Your task to perform on an android device: Open notification settings Image 0: 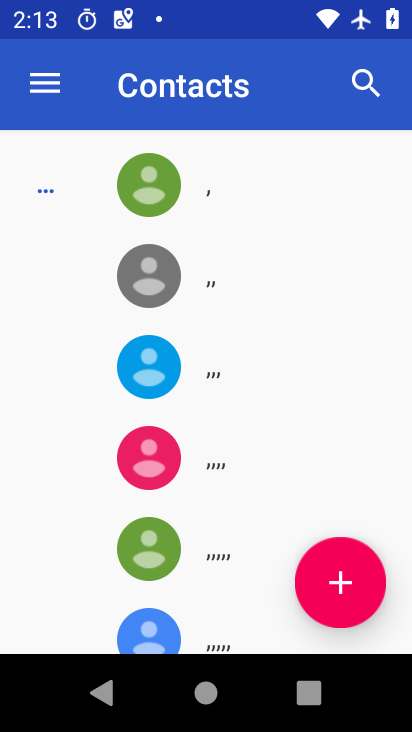
Step 0: press home button
Your task to perform on an android device: Open notification settings Image 1: 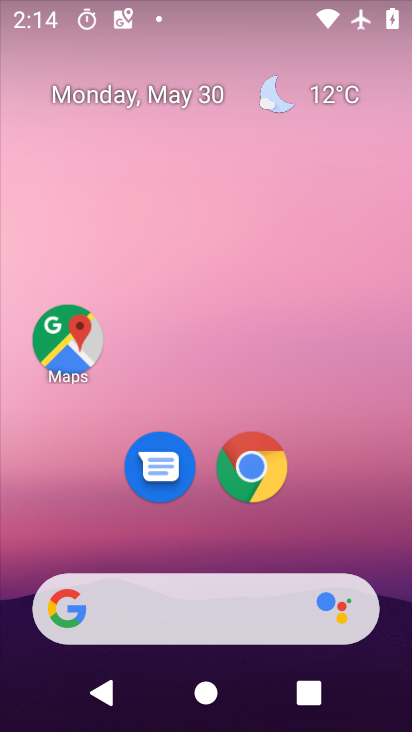
Step 1: drag from (395, 692) to (331, 218)
Your task to perform on an android device: Open notification settings Image 2: 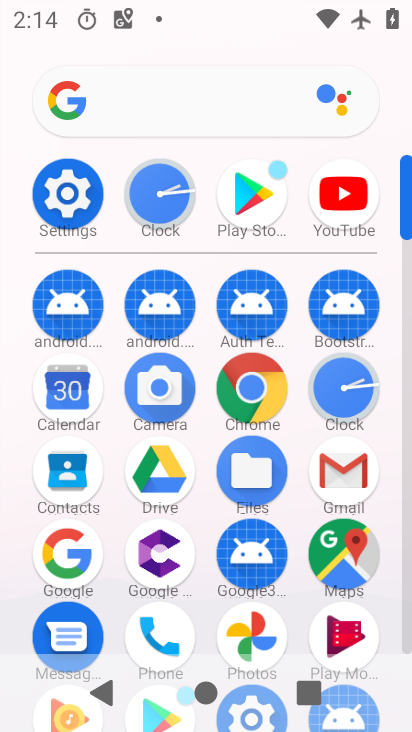
Step 2: click (62, 197)
Your task to perform on an android device: Open notification settings Image 3: 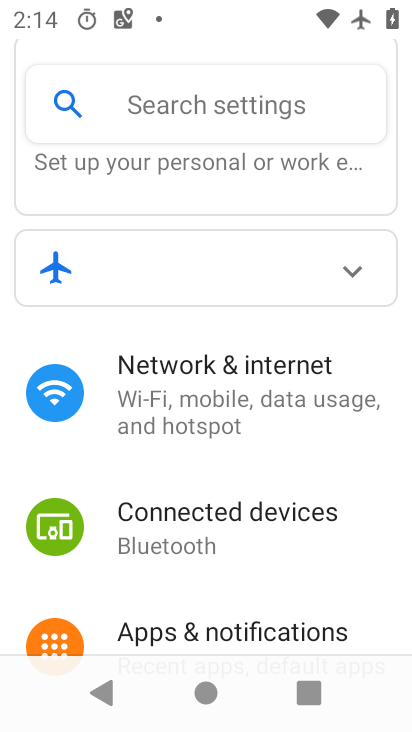
Step 3: click (181, 624)
Your task to perform on an android device: Open notification settings Image 4: 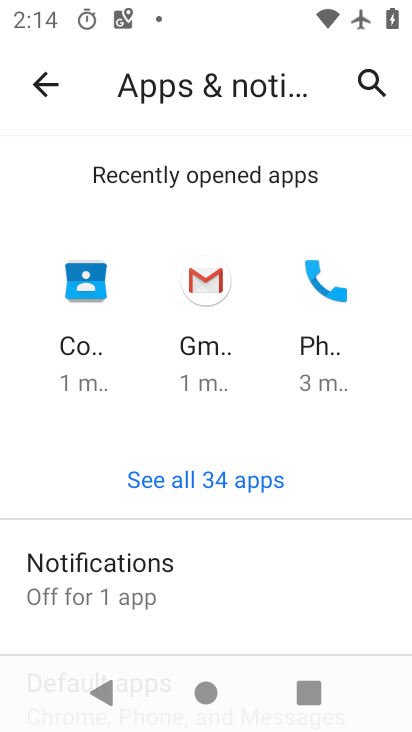
Step 4: click (74, 563)
Your task to perform on an android device: Open notification settings Image 5: 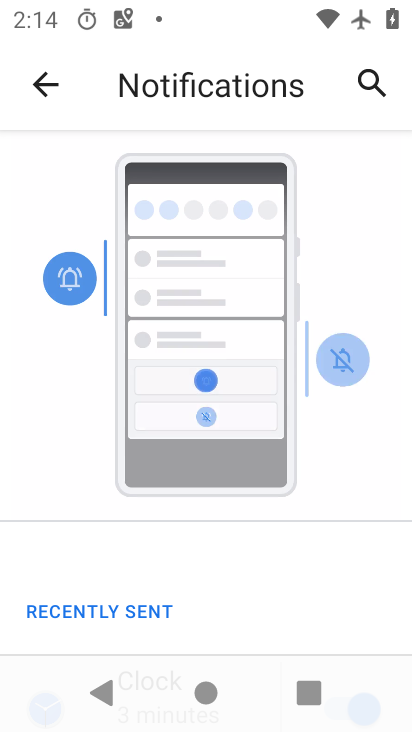
Step 5: drag from (252, 600) to (264, 250)
Your task to perform on an android device: Open notification settings Image 6: 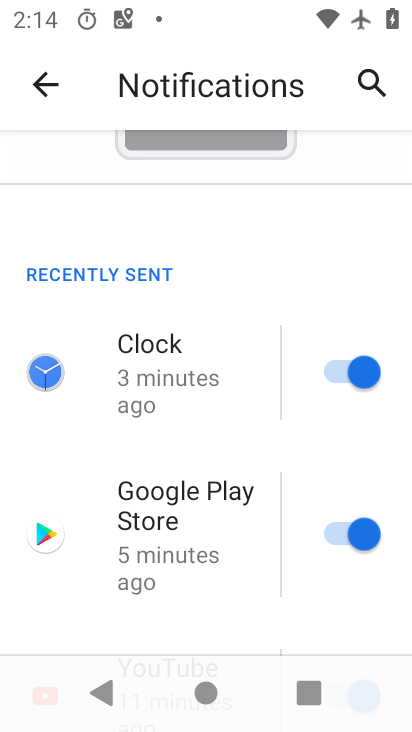
Step 6: drag from (243, 590) to (256, 240)
Your task to perform on an android device: Open notification settings Image 7: 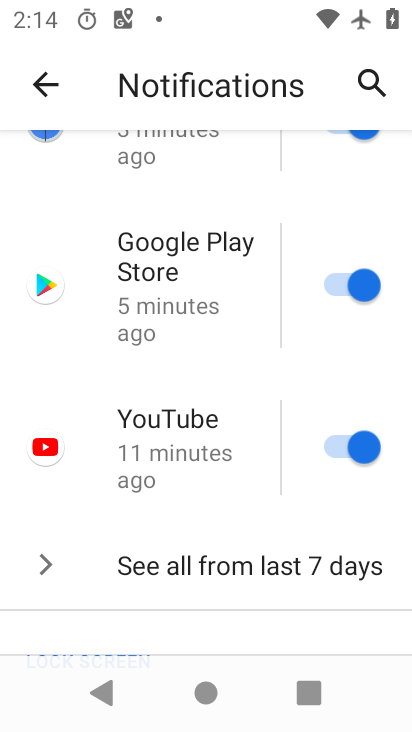
Step 7: drag from (243, 508) to (257, 288)
Your task to perform on an android device: Open notification settings Image 8: 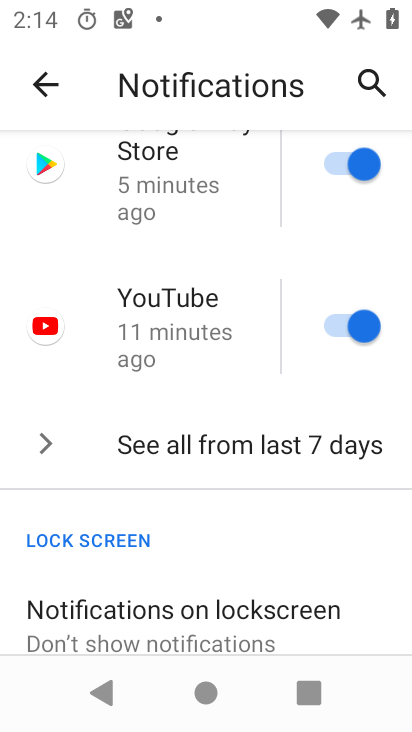
Step 8: drag from (197, 565) to (203, 324)
Your task to perform on an android device: Open notification settings Image 9: 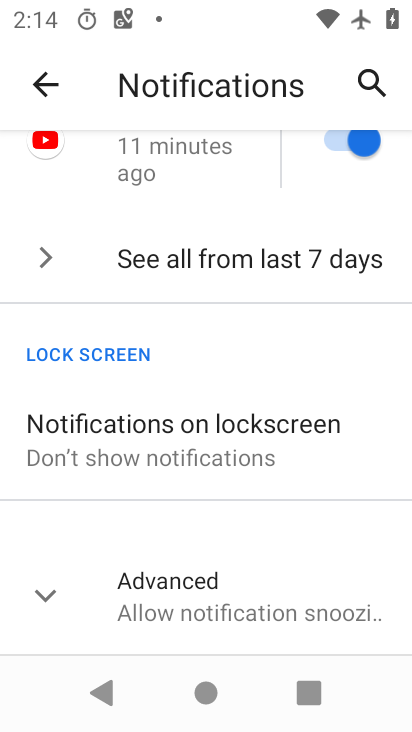
Step 9: click (126, 430)
Your task to perform on an android device: Open notification settings Image 10: 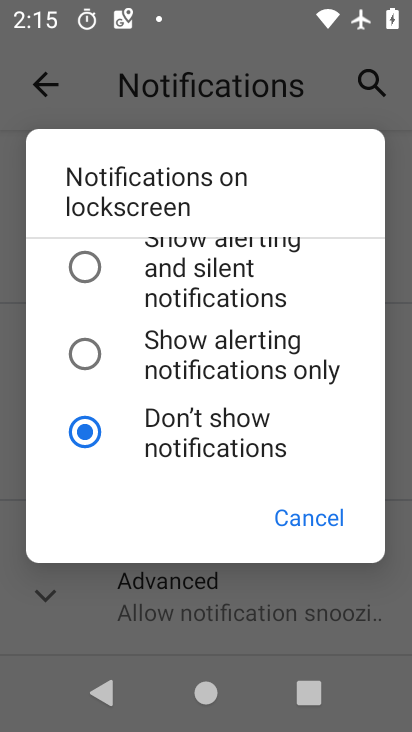
Step 10: click (312, 522)
Your task to perform on an android device: Open notification settings Image 11: 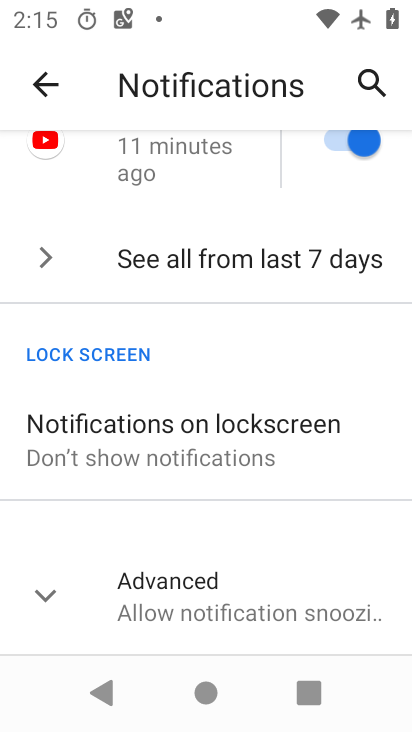
Step 11: task complete